Your task to perform on an android device: move an email to a new category in the gmail app Image 0: 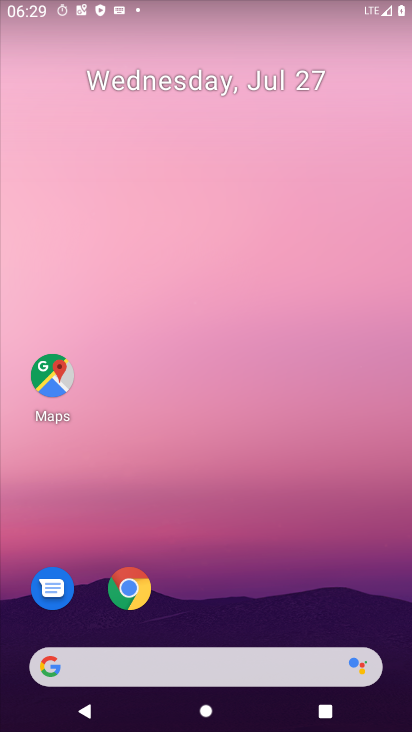
Step 0: drag from (232, 660) to (295, 98)
Your task to perform on an android device: move an email to a new category in the gmail app Image 1: 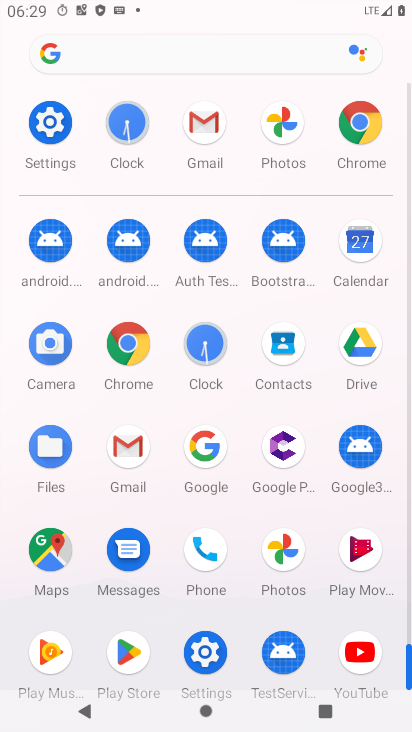
Step 1: click (129, 452)
Your task to perform on an android device: move an email to a new category in the gmail app Image 2: 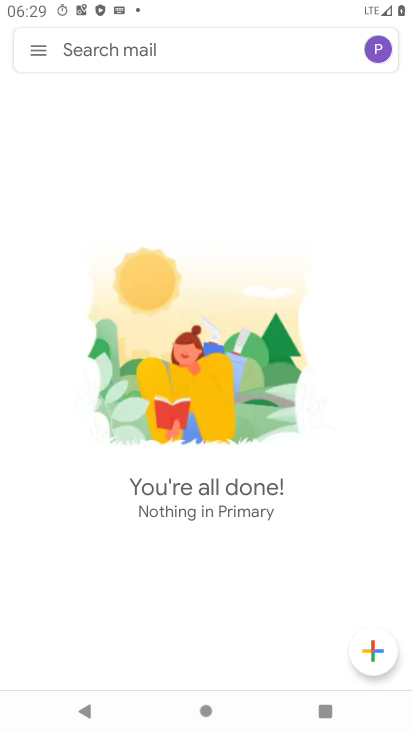
Step 2: click (22, 46)
Your task to perform on an android device: move an email to a new category in the gmail app Image 3: 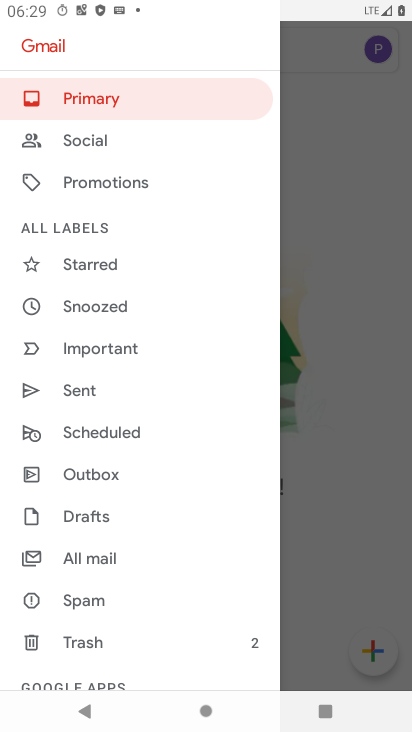
Step 3: click (108, 300)
Your task to perform on an android device: move an email to a new category in the gmail app Image 4: 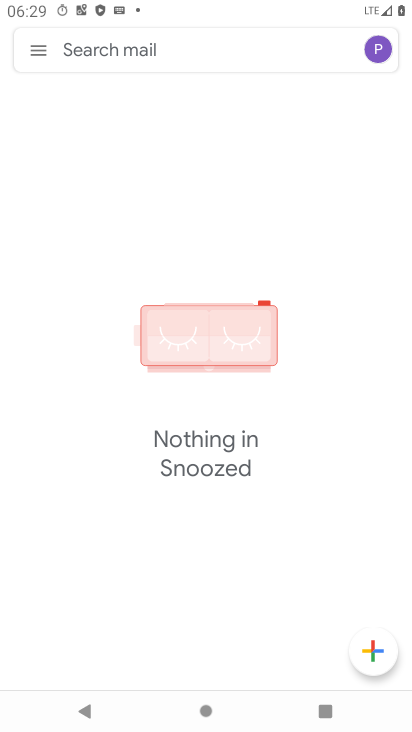
Step 4: task complete